Your task to perform on an android device: change the clock display to show seconds Image 0: 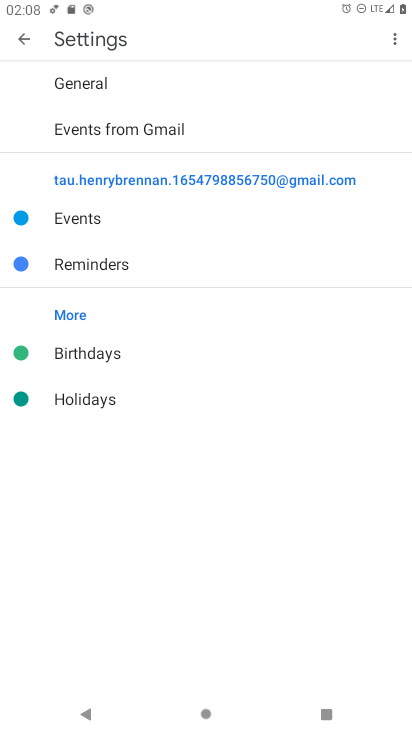
Step 0: press home button
Your task to perform on an android device: change the clock display to show seconds Image 1: 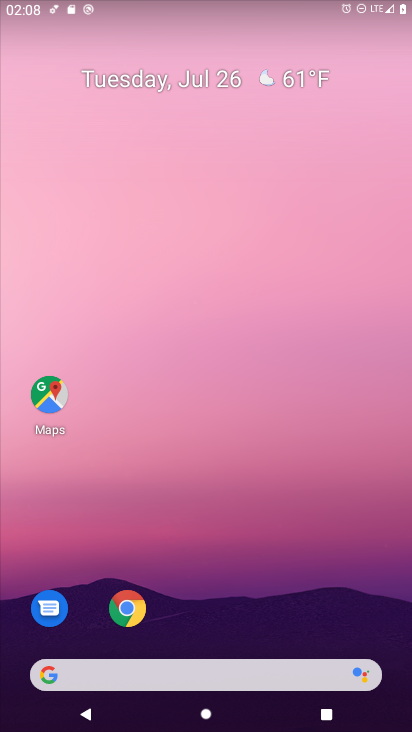
Step 1: drag from (13, 565) to (368, 50)
Your task to perform on an android device: change the clock display to show seconds Image 2: 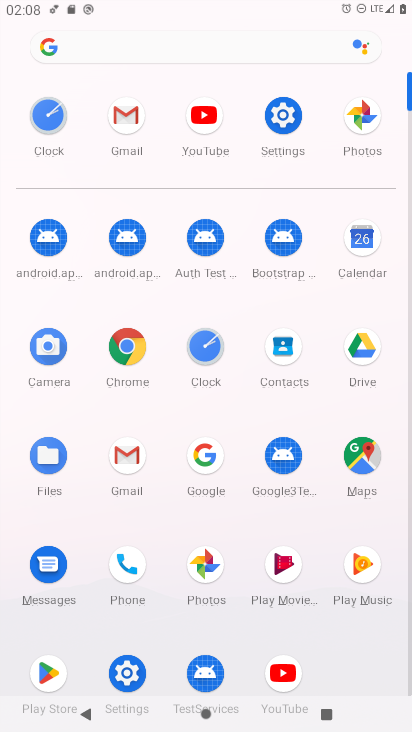
Step 2: click (274, 104)
Your task to perform on an android device: change the clock display to show seconds Image 3: 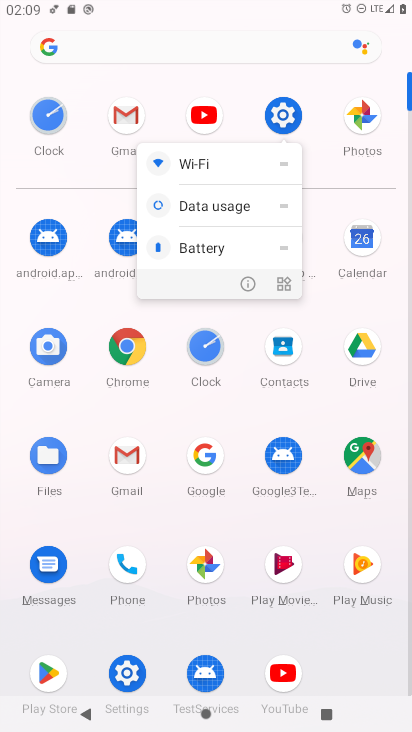
Step 3: click (285, 111)
Your task to perform on an android device: change the clock display to show seconds Image 4: 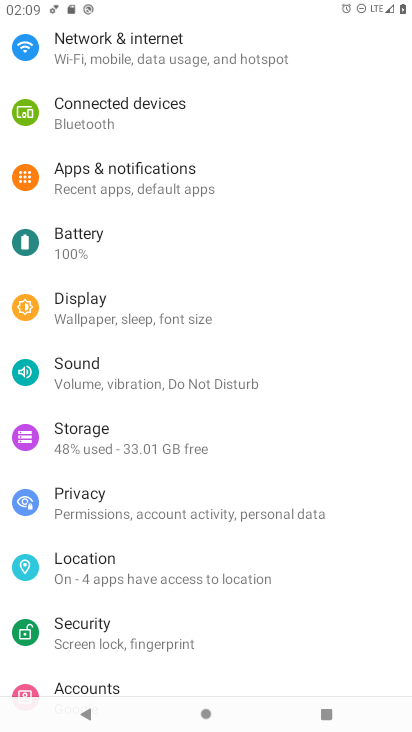
Step 4: press home button
Your task to perform on an android device: change the clock display to show seconds Image 5: 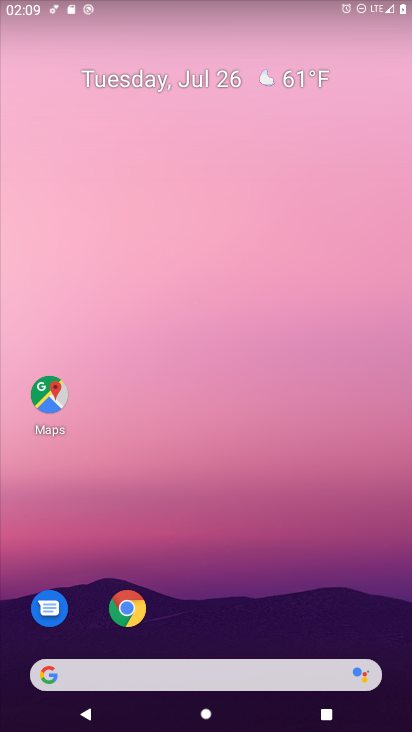
Step 5: drag from (28, 550) to (291, 97)
Your task to perform on an android device: change the clock display to show seconds Image 6: 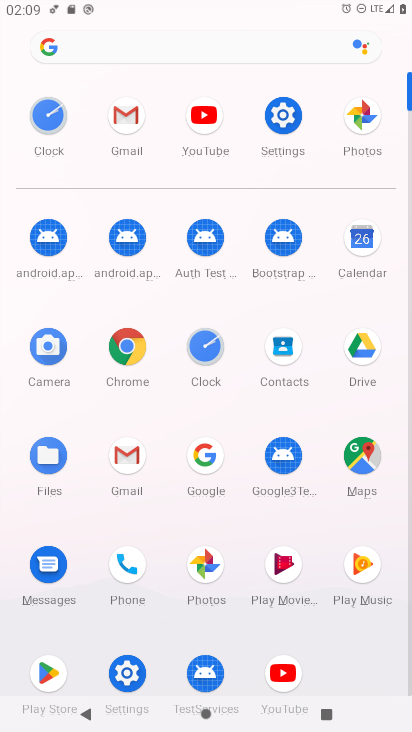
Step 6: click (212, 347)
Your task to perform on an android device: change the clock display to show seconds Image 7: 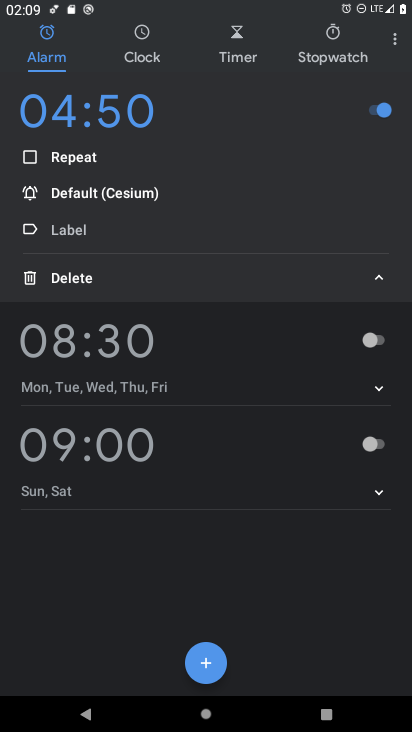
Step 7: click (394, 39)
Your task to perform on an android device: change the clock display to show seconds Image 8: 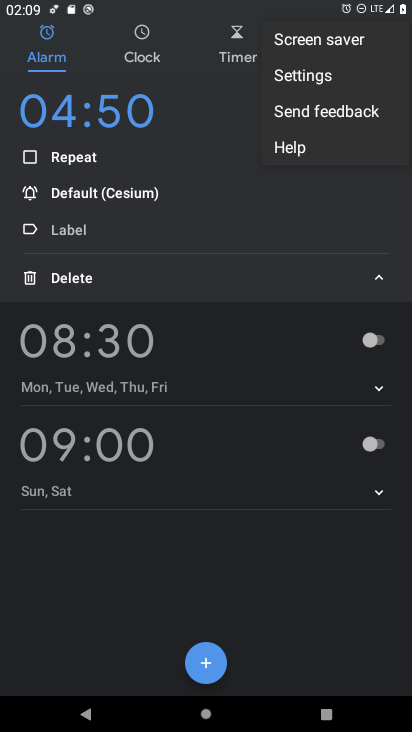
Step 8: click (339, 72)
Your task to perform on an android device: change the clock display to show seconds Image 9: 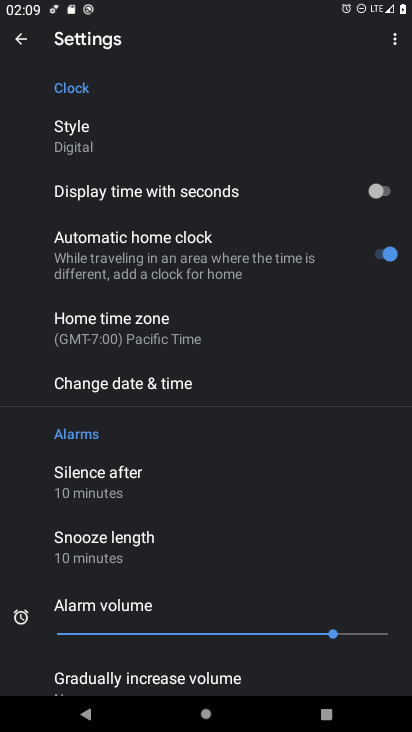
Step 9: click (380, 191)
Your task to perform on an android device: change the clock display to show seconds Image 10: 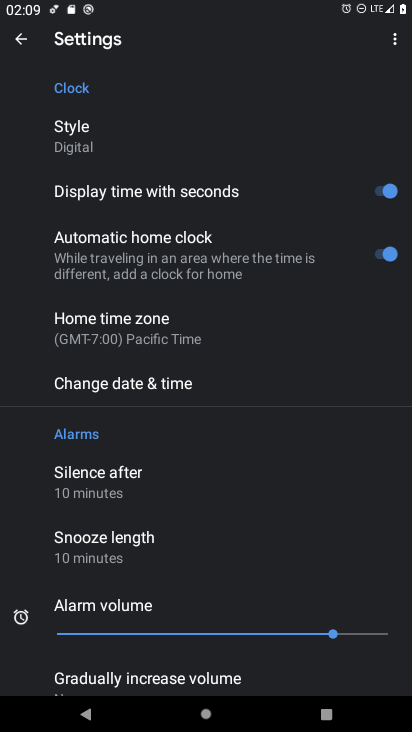
Step 10: task complete